Your task to perform on an android device: Search for the best rated coffee table on Target. Image 0: 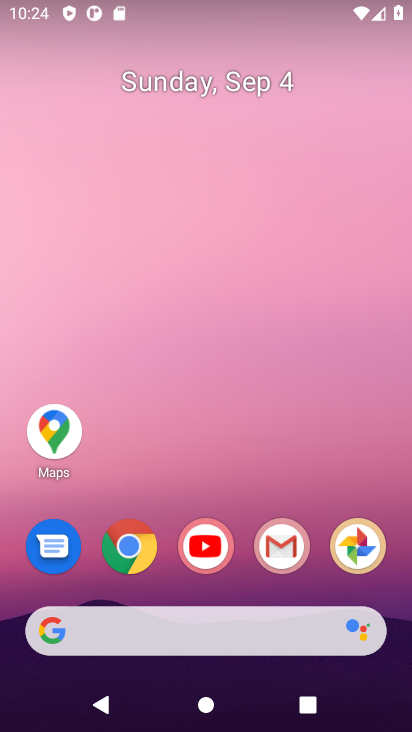
Step 0: click (128, 554)
Your task to perform on an android device: Search for the best rated coffee table on Target. Image 1: 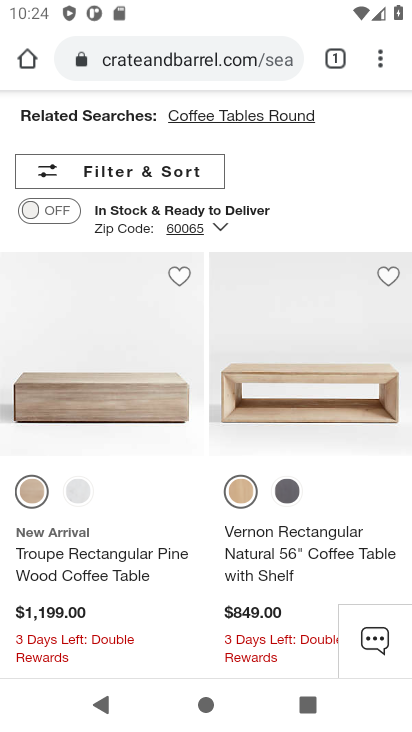
Step 1: click (145, 52)
Your task to perform on an android device: Search for the best rated coffee table on Target. Image 2: 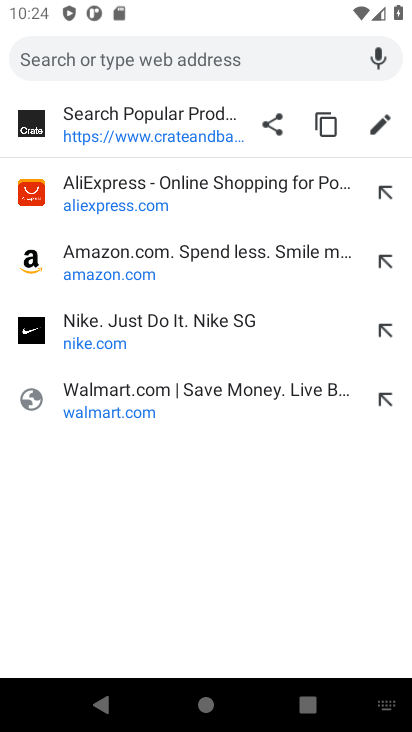
Step 2: type "Target."
Your task to perform on an android device: Search for the best rated coffee table on Target. Image 3: 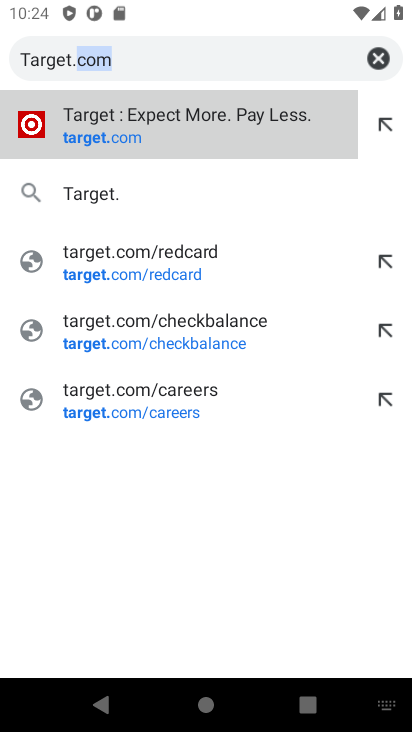
Step 3: click (129, 126)
Your task to perform on an android device: Search for the best rated coffee table on Target. Image 4: 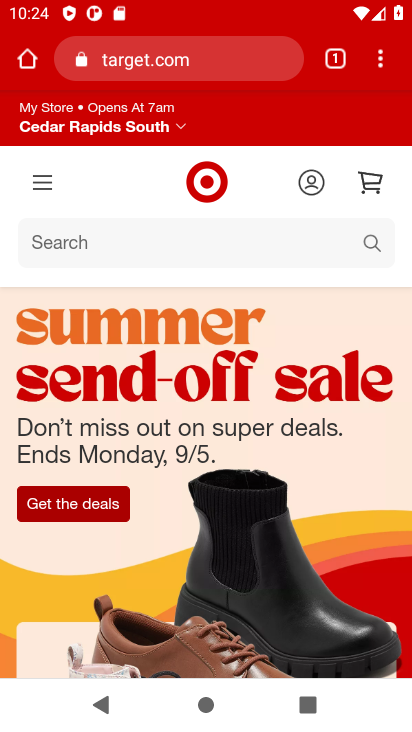
Step 4: click (365, 246)
Your task to perform on an android device: Search for the best rated coffee table on Target. Image 5: 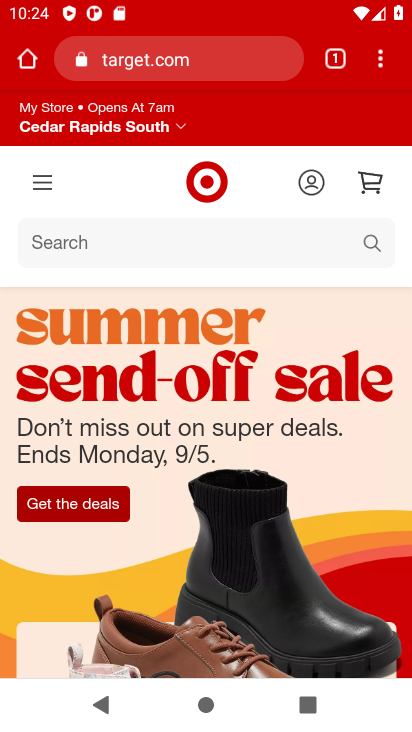
Step 5: click (76, 245)
Your task to perform on an android device: Search for the best rated coffee table on Target. Image 6: 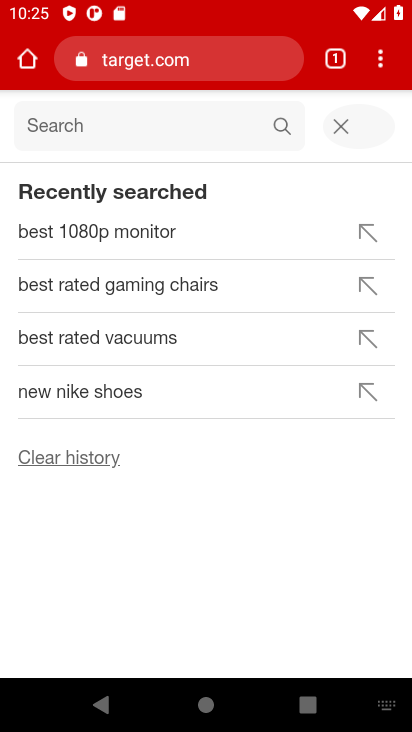
Step 6: type "best rated coffee table"
Your task to perform on an android device: Search for the best rated coffee table on Target. Image 7: 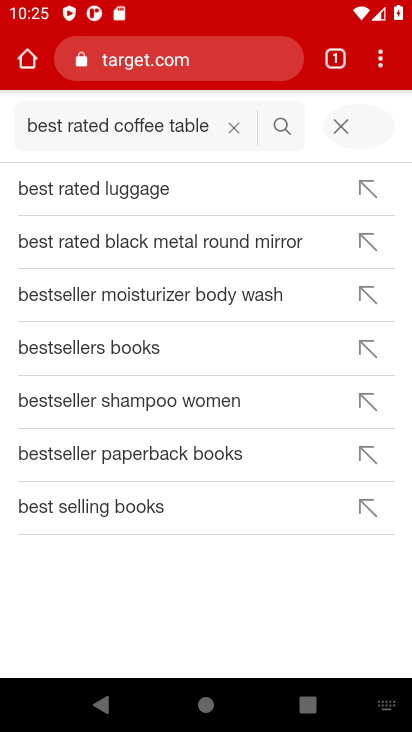
Step 7: click (267, 130)
Your task to perform on an android device: Search for the best rated coffee table on Target. Image 8: 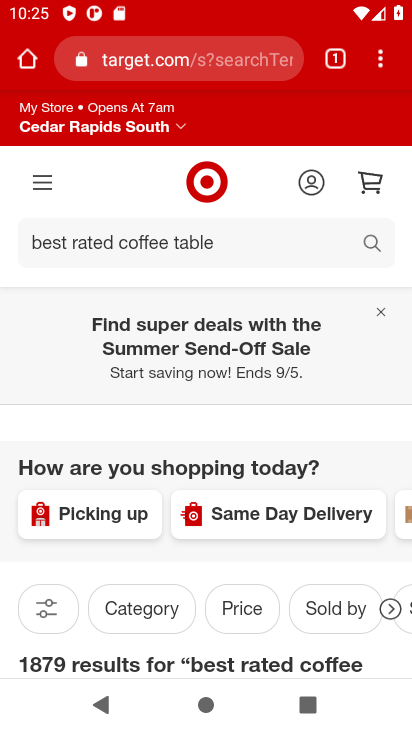
Step 8: click (265, 188)
Your task to perform on an android device: Search for the best rated coffee table on Target. Image 9: 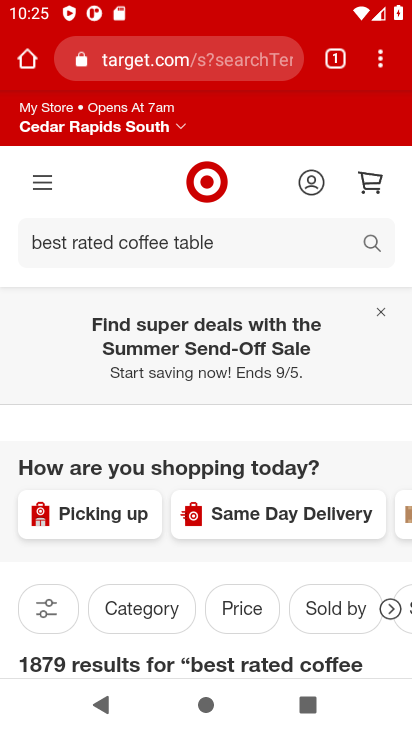
Step 9: task complete